Your task to perform on an android device: visit the assistant section in the google photos Image 0: 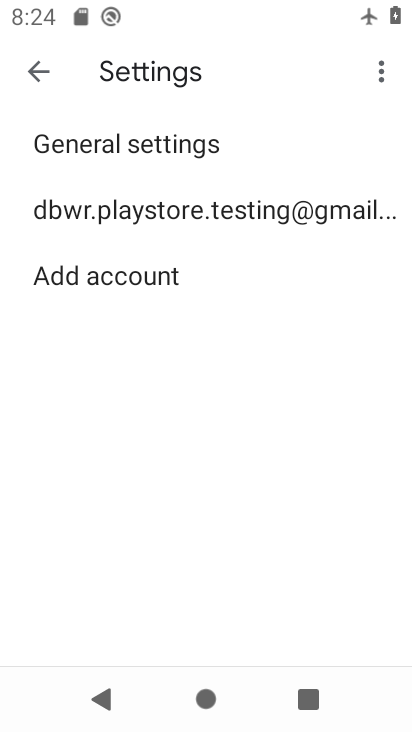
Step 0: press home button
Your task to perform on an android device: visit the assistant section in the google photos Image 1: 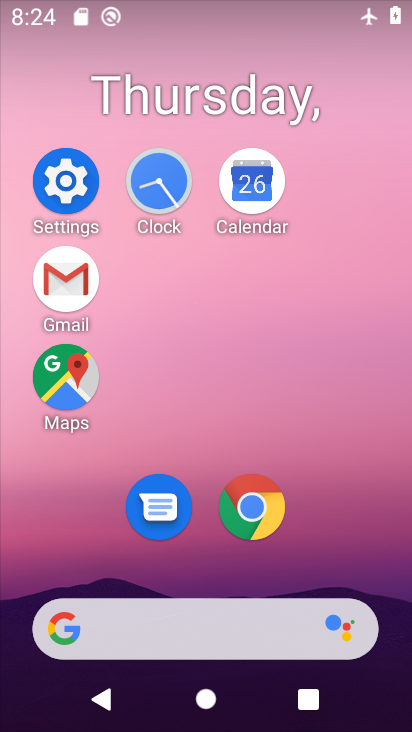
Step 1: drag from (272, 539) to (263, 116)
Your task to perform on an android device: visit the assistant section in the google photos Image 2: 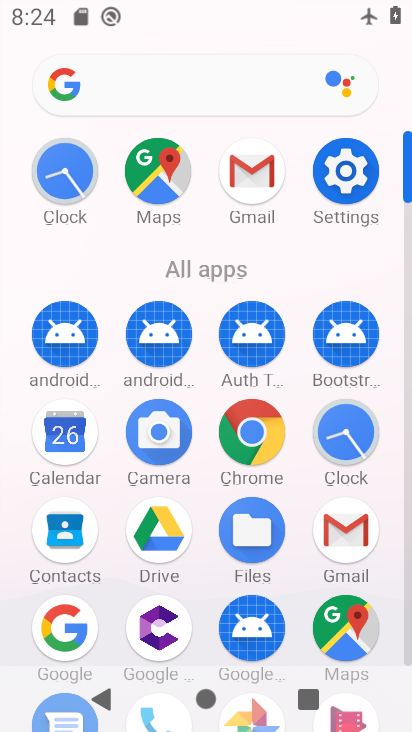
Step 2: drag from (190, 505) to (232, 188)
Your task to perform on an android device: visit the assistant section in the google photos Image 3: 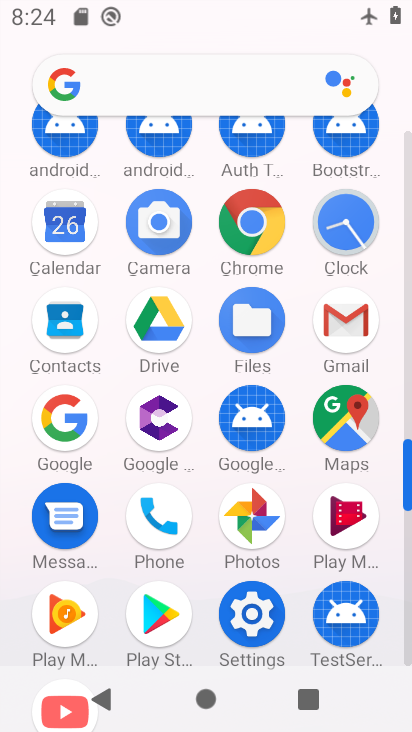
Step 3: drag from (236, 506) to (170, 313)
Your task to perform on an android device: visit the assistant section in the google photos Image 4: 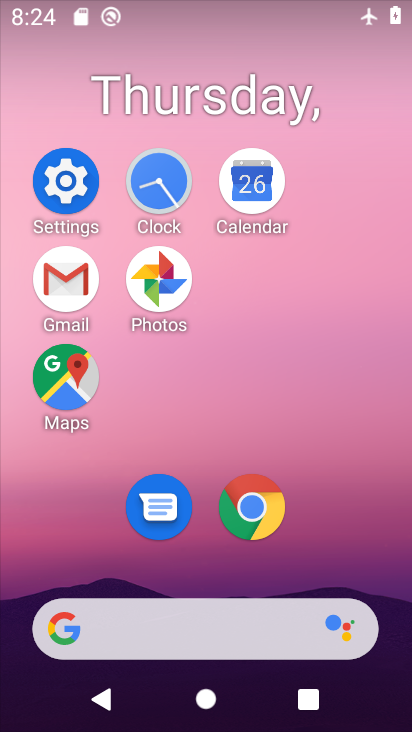
Step 4: click (151, 289)
Your task to perform on an android device: visit the assistant section in the google photos Image 5: 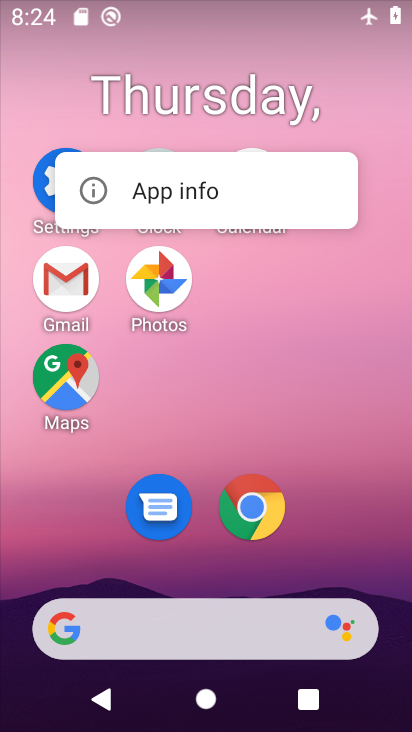
Step 5: click (151, 289)
Your task to perform on an android device: visit the assistant section in the google photos Image 6: 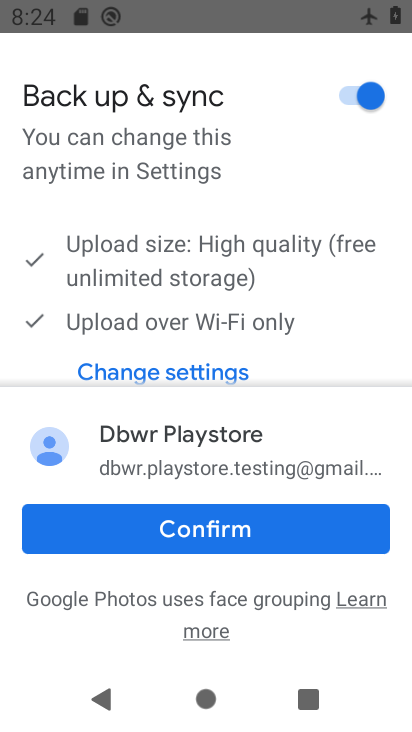
Step 6: click (275, 527)
Your task to perform on an android device: visit the assistant section in the google photos Image 7: 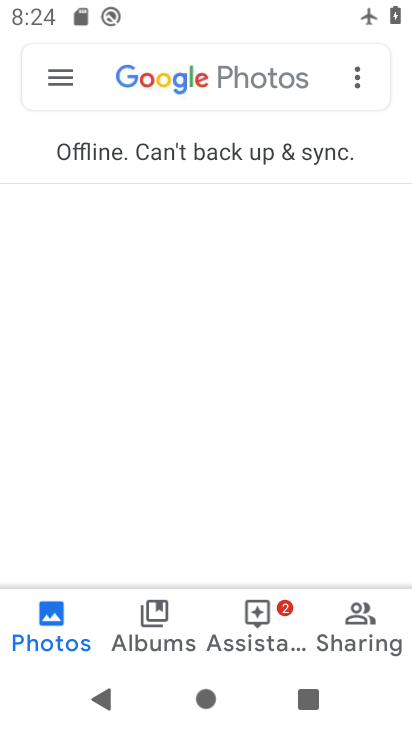
Step 7: click (287, 619)
Your task to perform on an android device: visit the assistant section in the google photos Image 8: 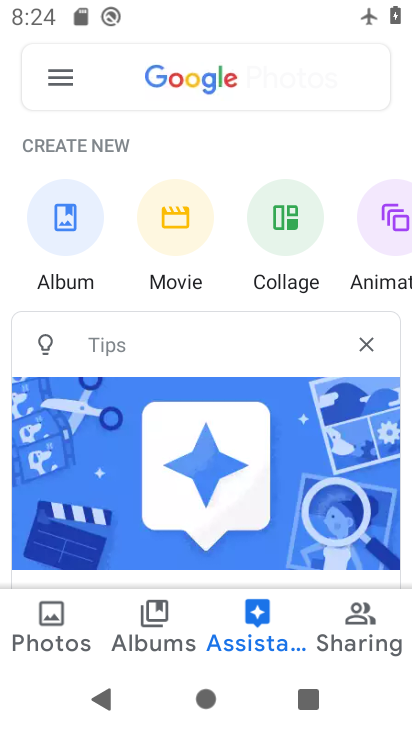
Step 8: task complete